Your task to perform on an android device: allow cookies in the chrome app Image 0: 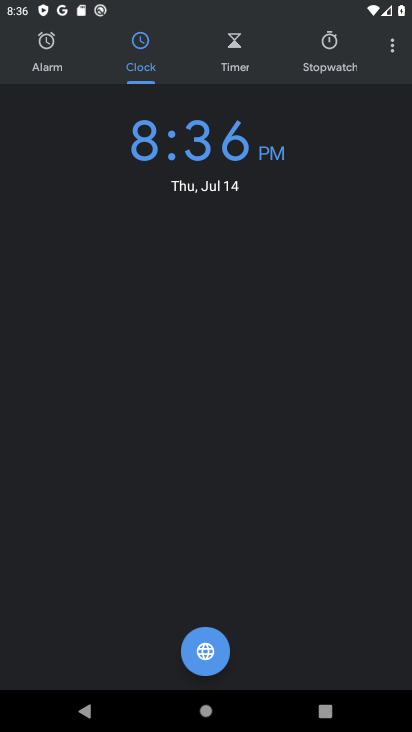
Step 0: press back button
Your task to perform on an android device: allow cookies in the chrome app Image 1: 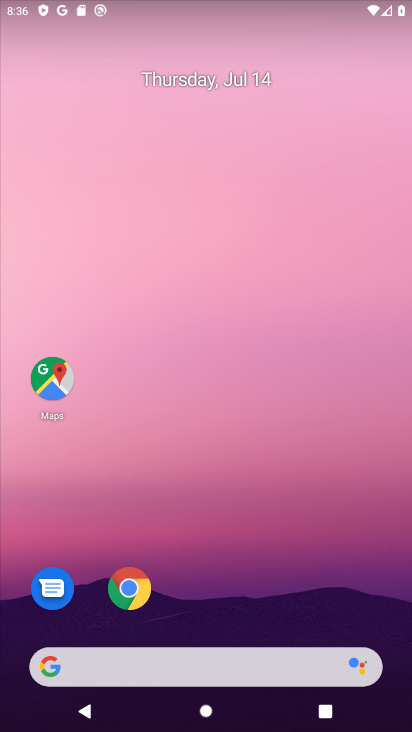
Step 1: drag from (256, 532) to (238, 141)
Your task to perform on an android device: allow cookies in the chrome app Image 2: 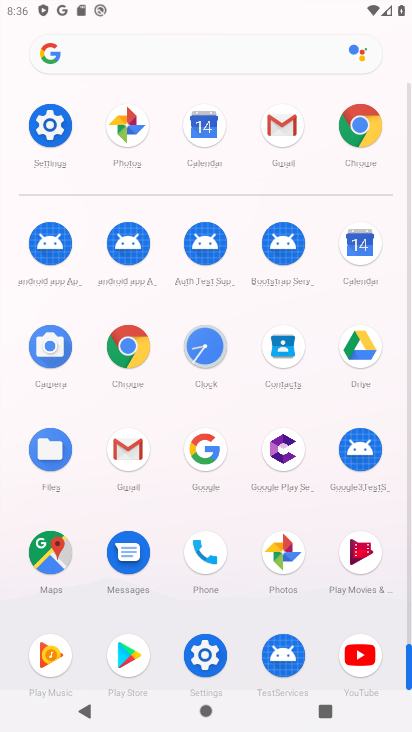
Step 2: click (357, 126)
Your task to perform on an android device: allow cookies in the chrome app Image 3: 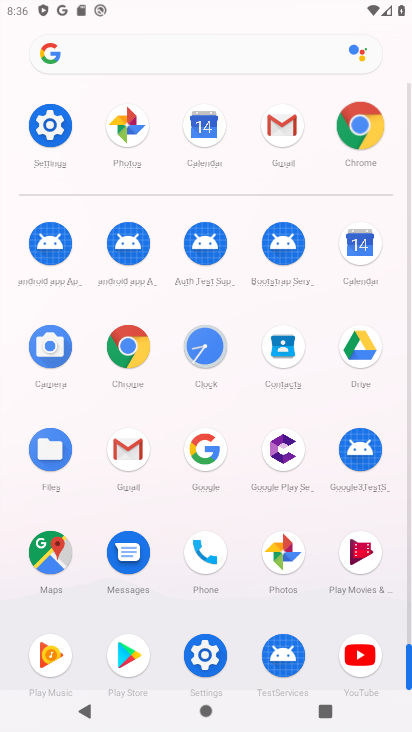
Step 3: click (357, 126)
Your task to perform on an android device: allow cookies in the chrome app Image 4: 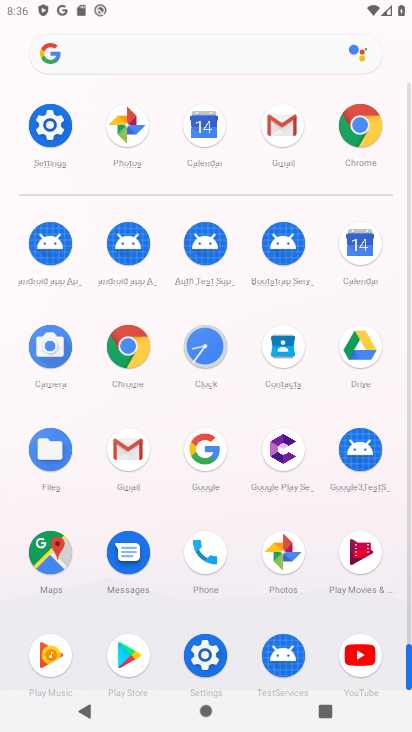
Step 4: click (361, 129)
Your task to perform on an android device: allow cookies in the chrome app Image 5: 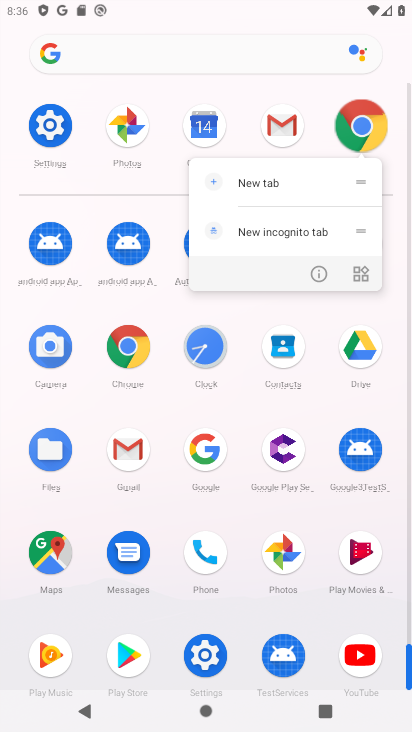
Step 5: click (361, 129)
Your task to perform on an android device: allow cookies in the chrome app Image 6: 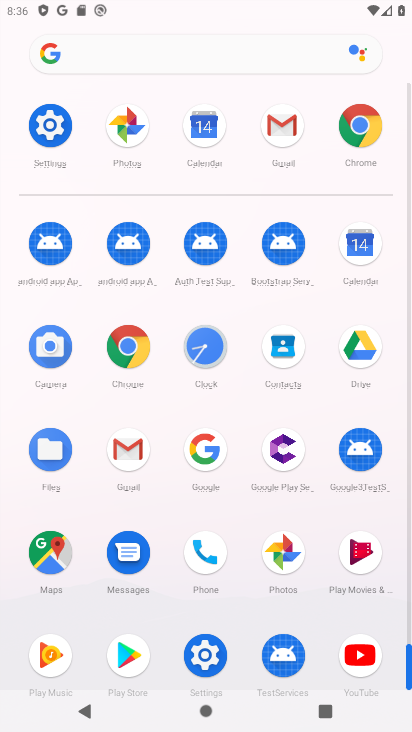
Step 6: click (361, 129)
Your task to perform on an android device: allow cookies in the chrome app Image 7: 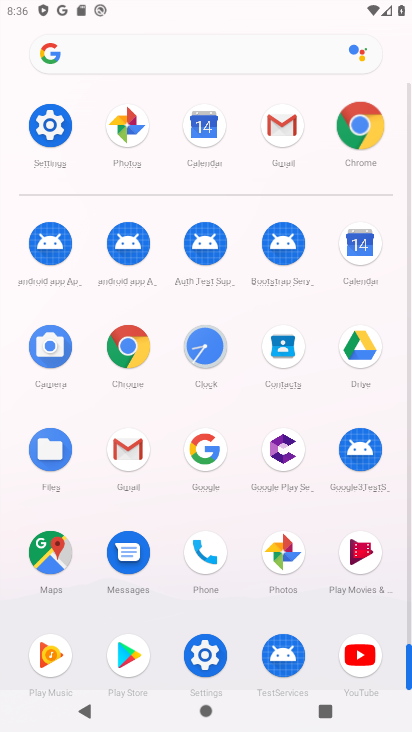
Step 7: click (361, 129)
Your task to perform on an android device: allow cookies in the chrome app Image 8: 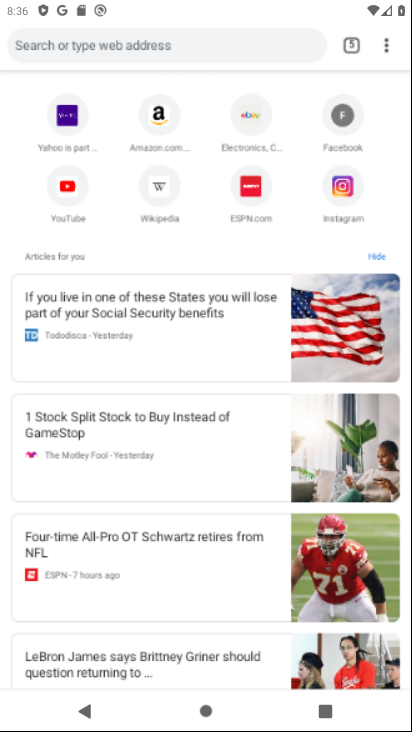
Step 8: click (362, 130)
Your task to perform on an android device: allow cookies in the chrome app Image 9: 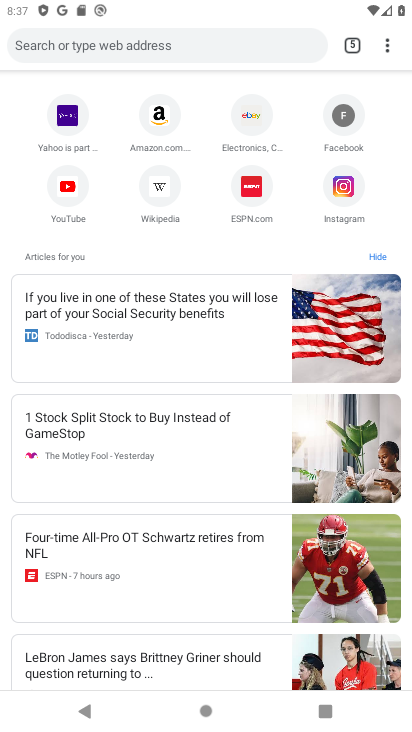
Step 9: drag from (381, 46) to (215, 376)
Your task to perform on an android device: allow cookies in the chrome app Image 10: 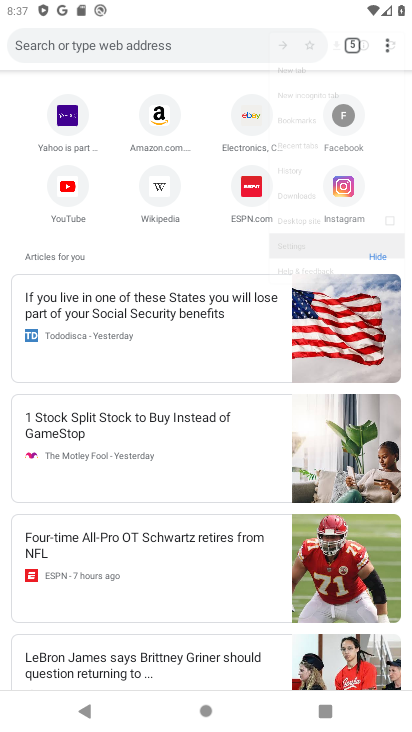
Step 10: click (215, 377)
Your task to perform on an android device: allow cookies in the chrome app Image 11: 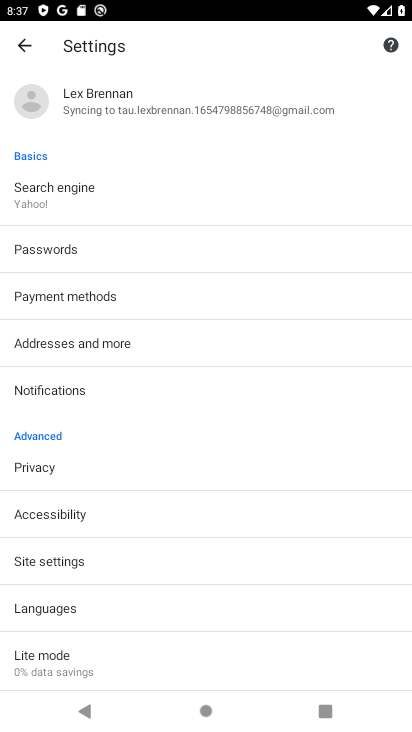
Step 11: click (43, 563)
Your task to perform on an android device: allow cookies in the chrome app Image 12: 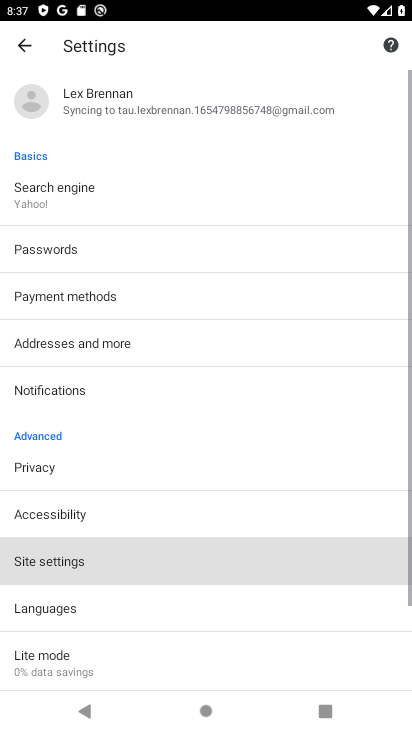
Step 12: click (43, 563)
Your task to perform on an android device: allow cookies in the chrome app Image 13: 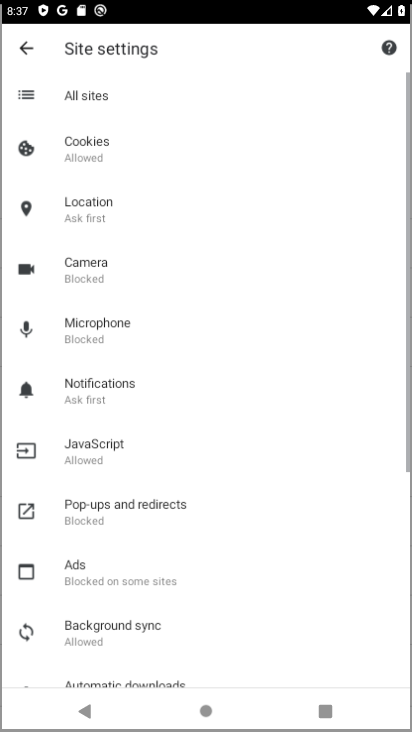
Step 13: click (43, 563)
Your task to perform on an android device: allow cookies in the chrome app Image 14: 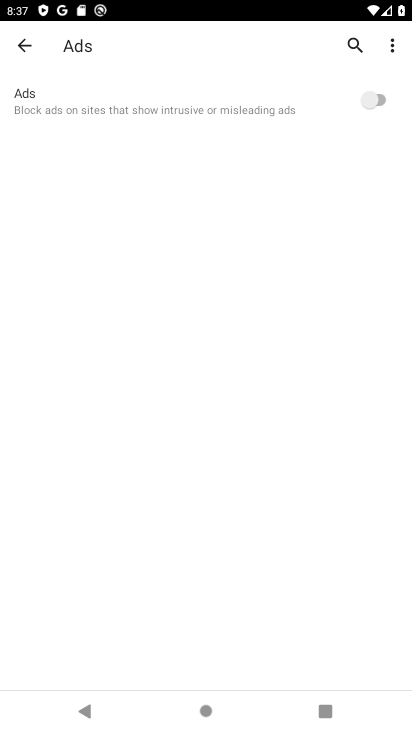
Step 14: click (20, 39)
Your task to perform on an android device: allow cookies in the chrome app Image 15: 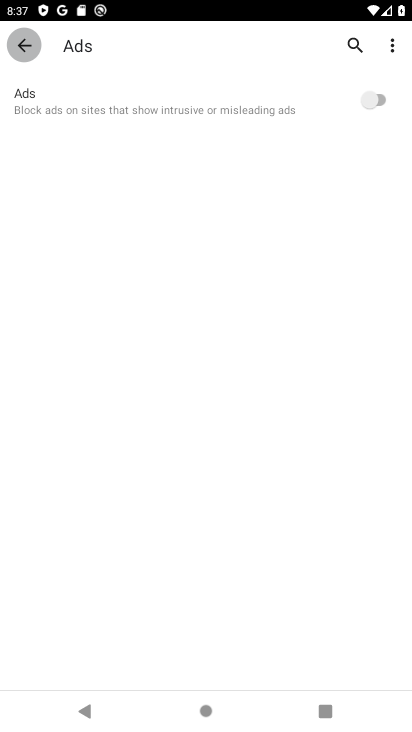
Step 15: click (20, 40)
Your task to perform on an android device: allow cookies in the chrome app Image 16: 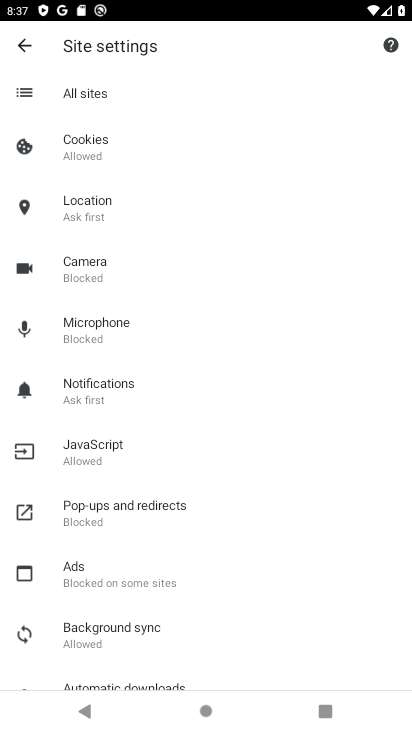
Step 16: click (85, 144)
Your task to perform on an android device: allow cookies in the chrome app Image 17: 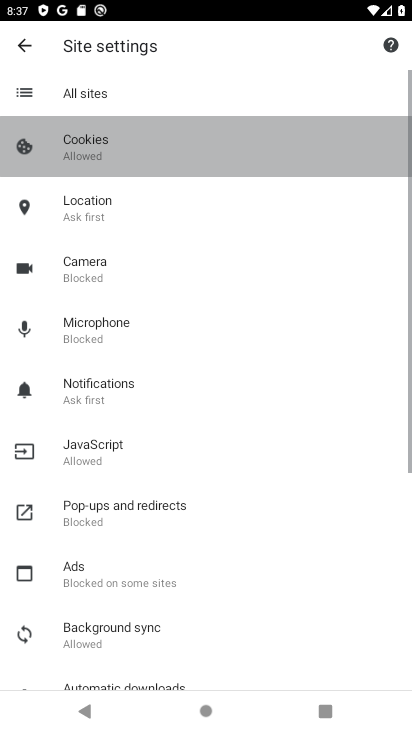
Step 17: click (85, 144)
Your task to perform on an android device: allow cookies in the chrome app Image 18: 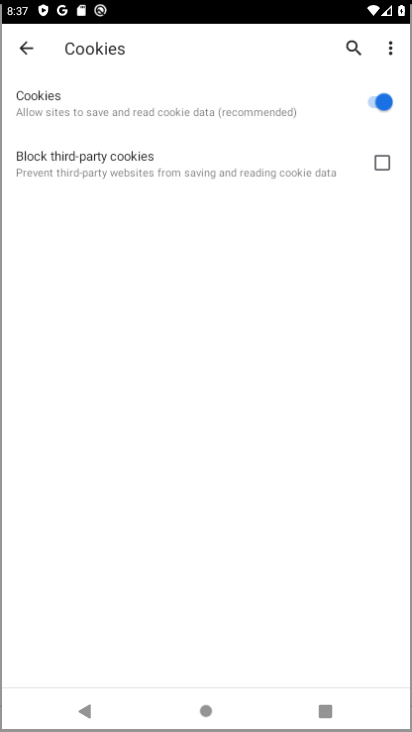
Step 18: click (84, 143)
Your task to perform on an android device: allow cookies in the chrome app Image 19: 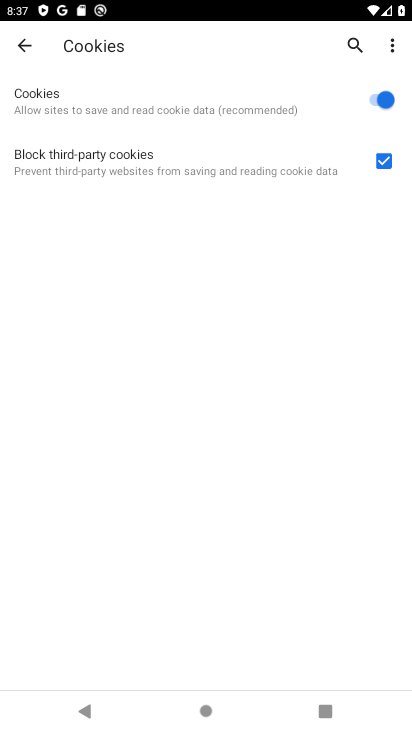
Step 19: task complete